Your task to perform on an android device: Search for razer blade on walmart, select the first entry, and add it to the cart. Image 0: 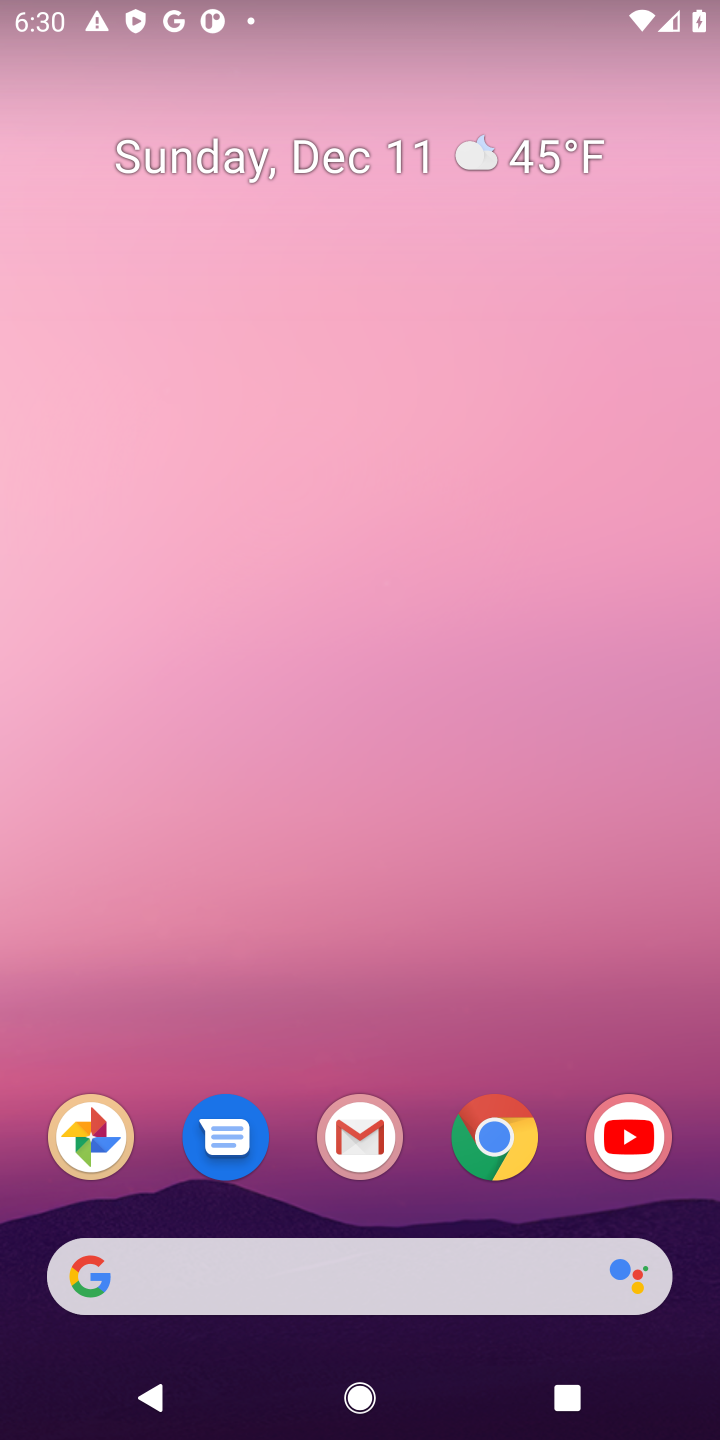
Step 0: click (525, 1152)
Your task to perform on an android device: Search for razer blade on walmart, select the first entry, and add it to the cart. Image 1: 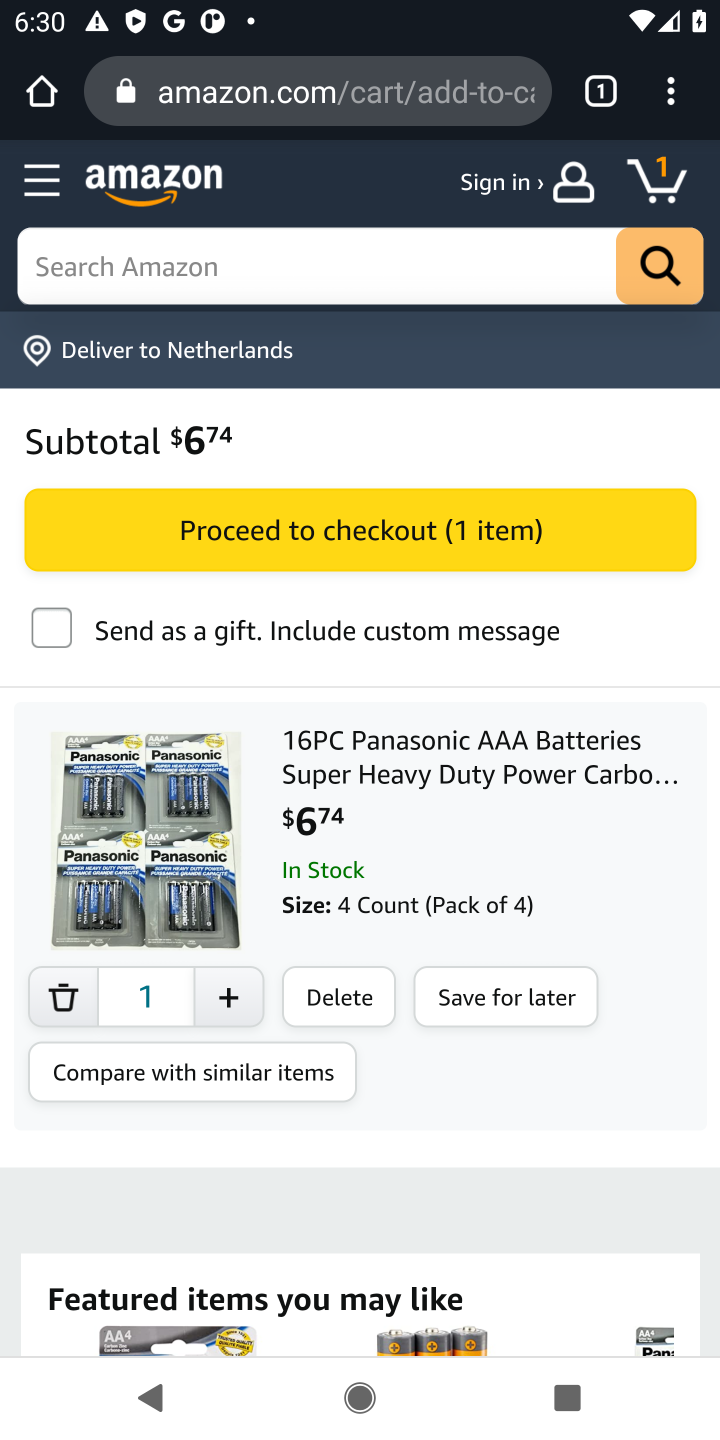
Step 1: click (370, 94)
Your task to perform on an android device: Search for razer blade on walmart, select the first entry, and add it to the cart. Image 2: 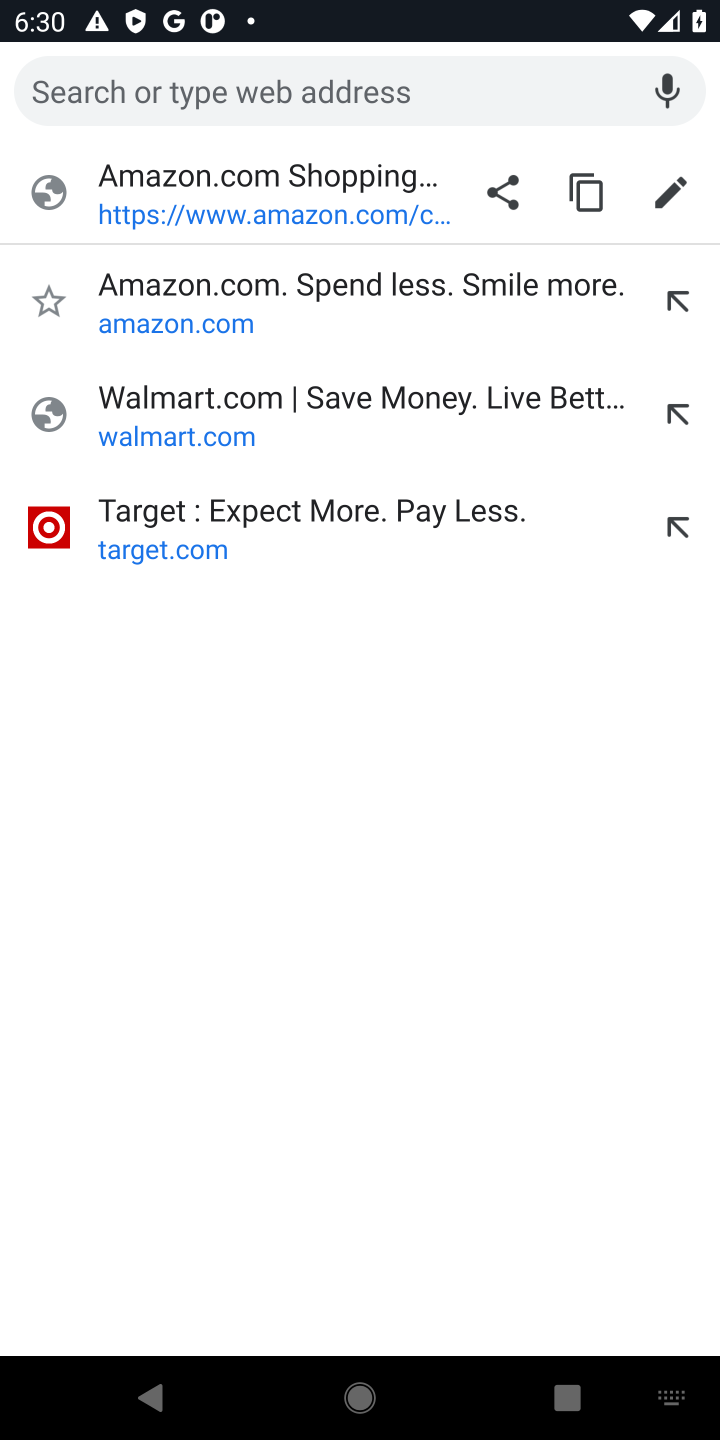
Step 2: click (197, 381)
Your task to perform on an android device: Search for razer blade on walmart, select the first entry, and add it to the cart. Image 3: 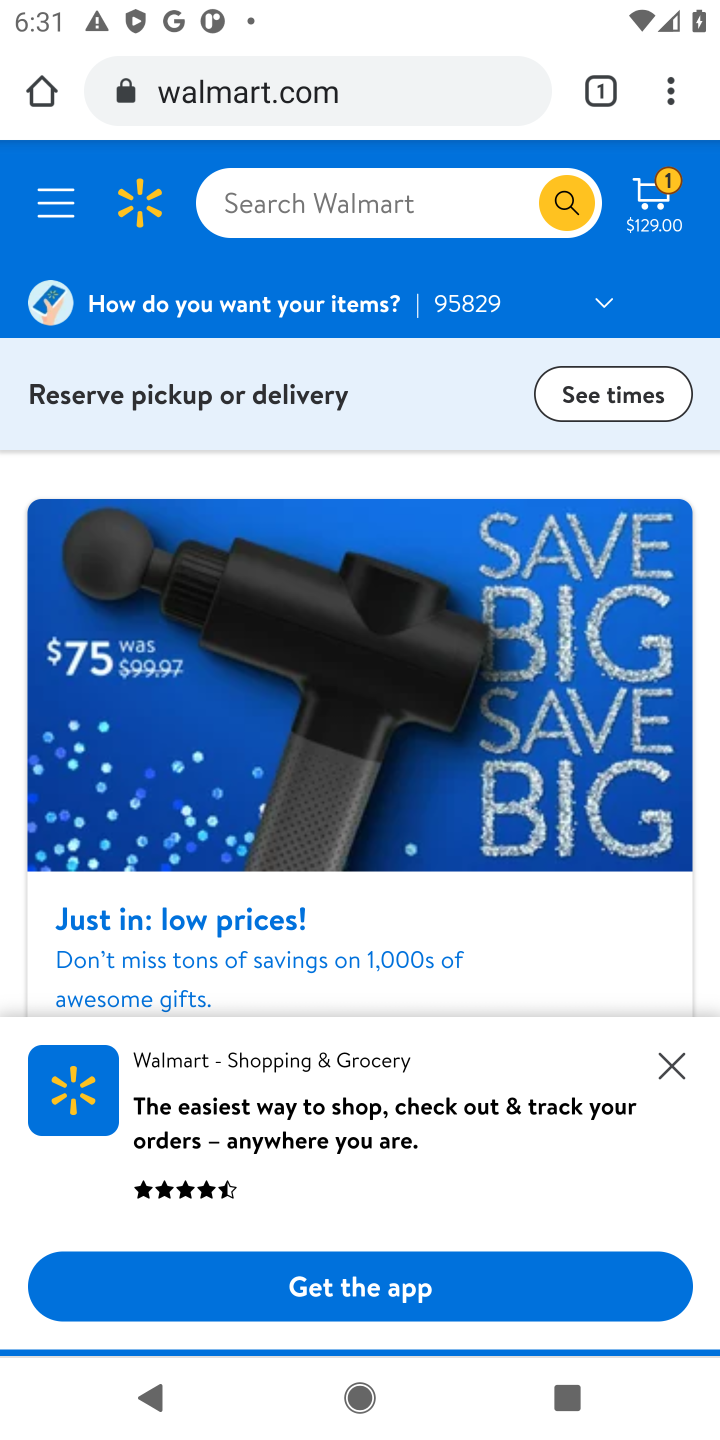
Step 3: click (352, 183)
Your task to perform on an android device: Search for razer blade on walmart, select the first entry, and add it to the cart. Image 4: 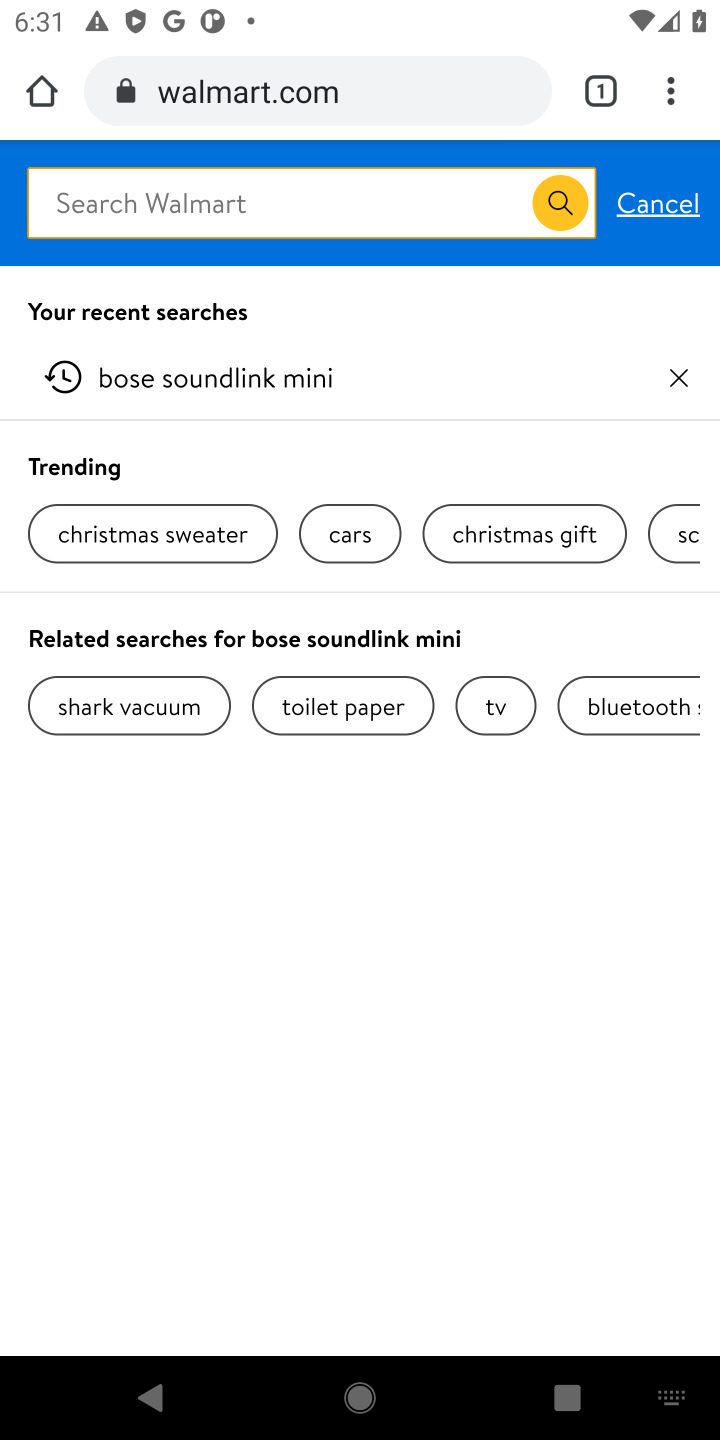
Step 4: type " razer blade"
Your task to perform on an android device: Search for razer blade on walmart, select the first entry, and add it to the cart. Image 5: 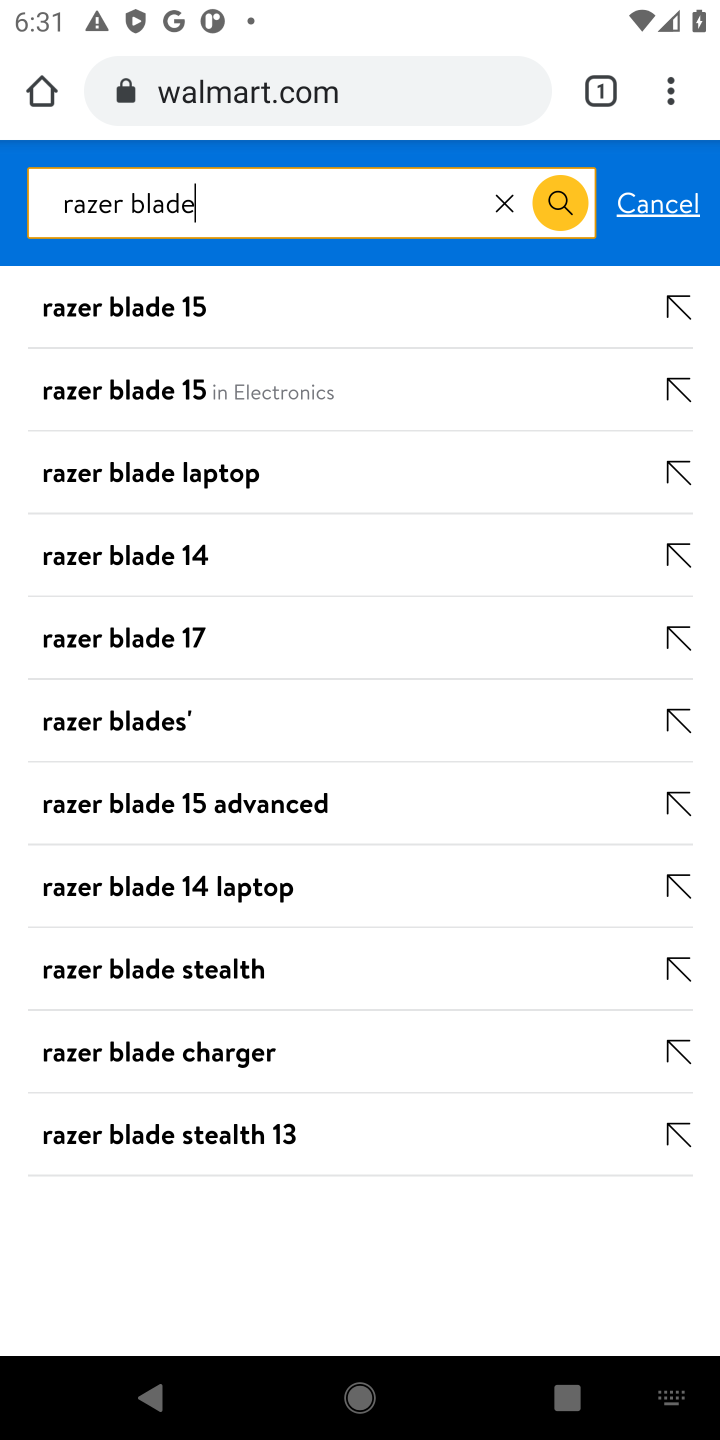
Step 5: click (575, 216)
Your task to perform on an android device: Search for razer blade on walmart, select the first entry, and add it to the cart. Image 6: 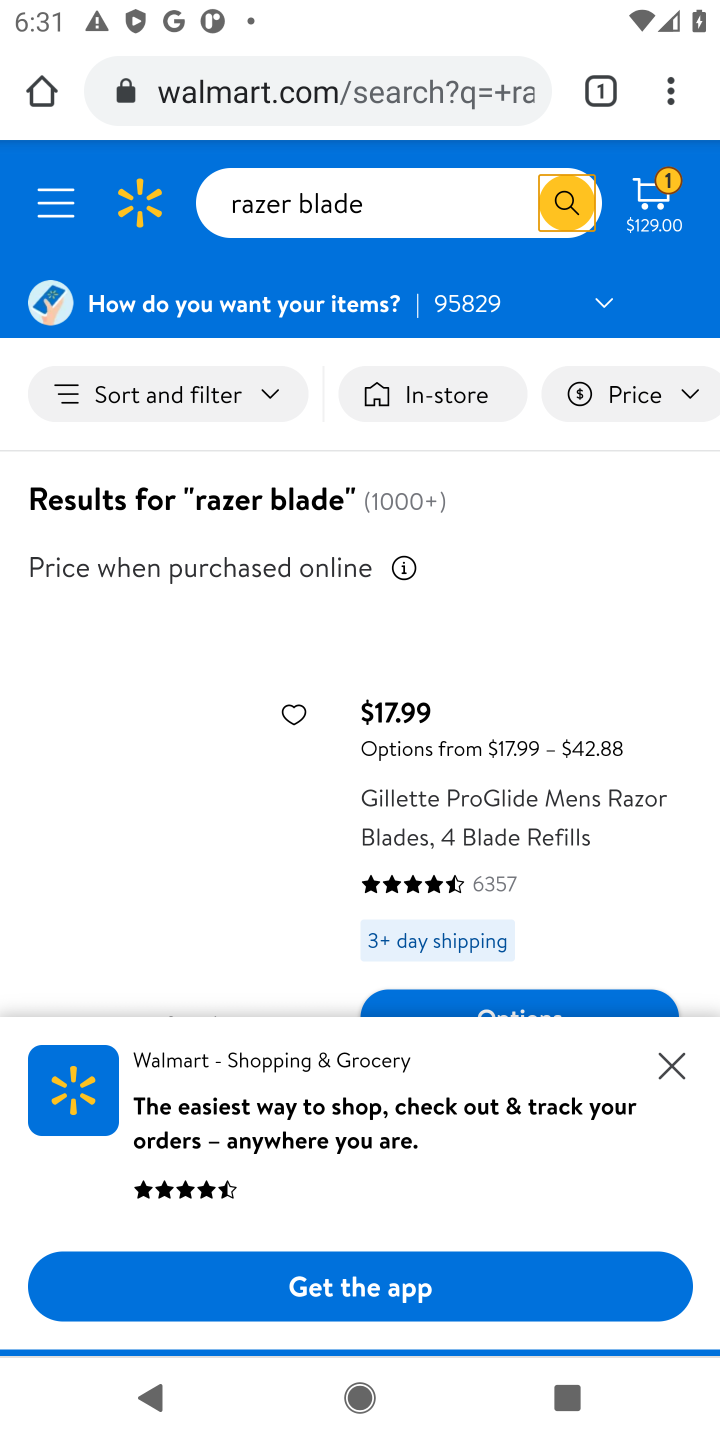
Step 6: click (682, 1073)
Your task to perform on an android device: Search for razer blade on walmart, select the first entry, and add it to the cart. Image 7: 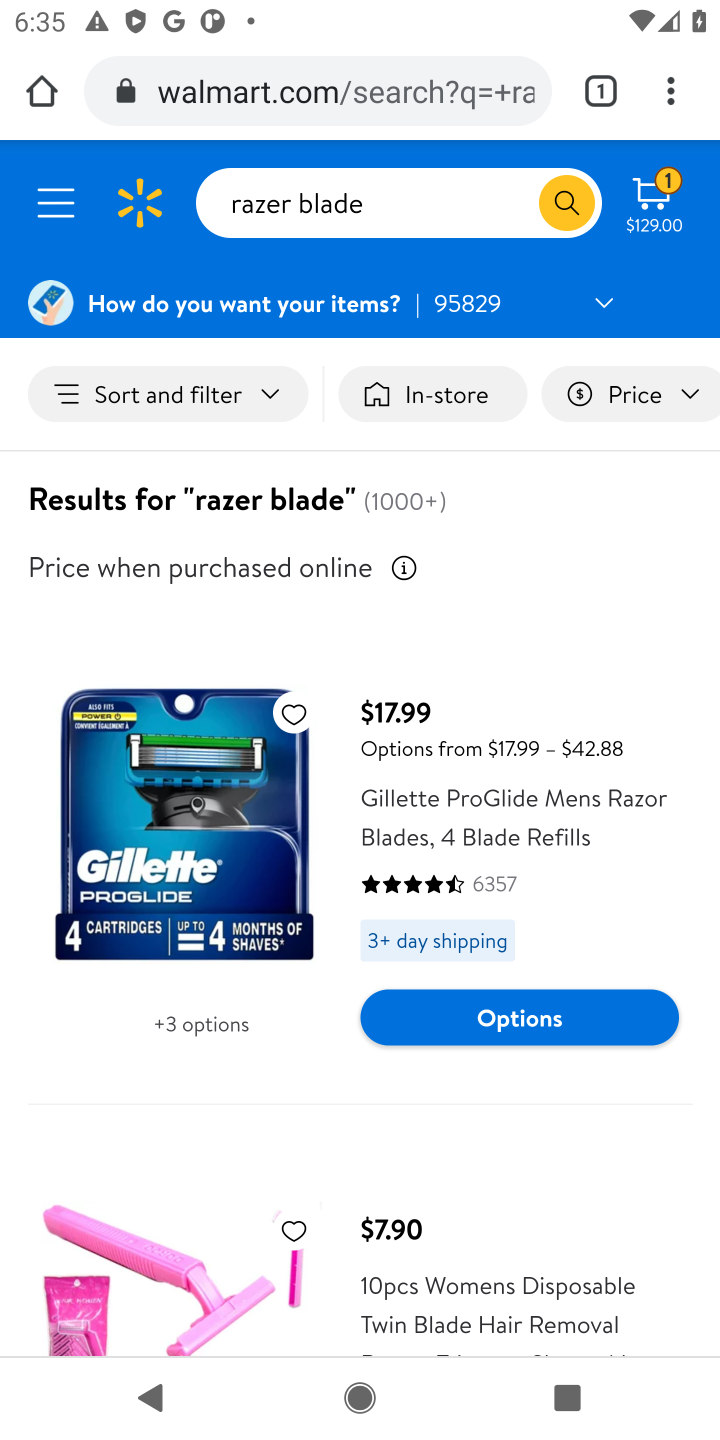
Step 7: task complete